Your task to perform on an android device: toggle pop-ups in chrome Image 0: 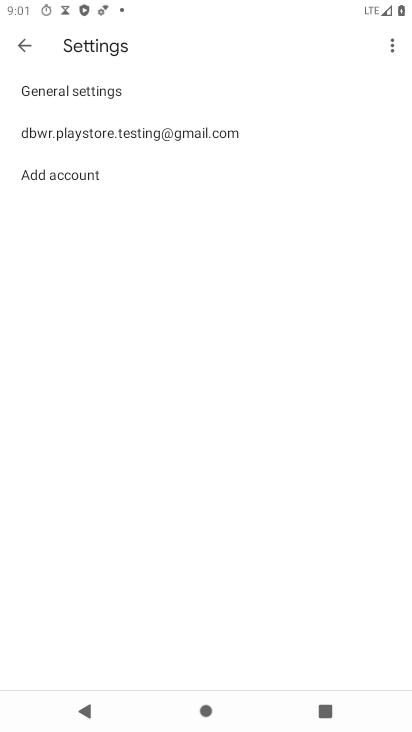
Step 0: press back button
Your task to perform on an android device: toggle pop-ups in chrome Image 1: 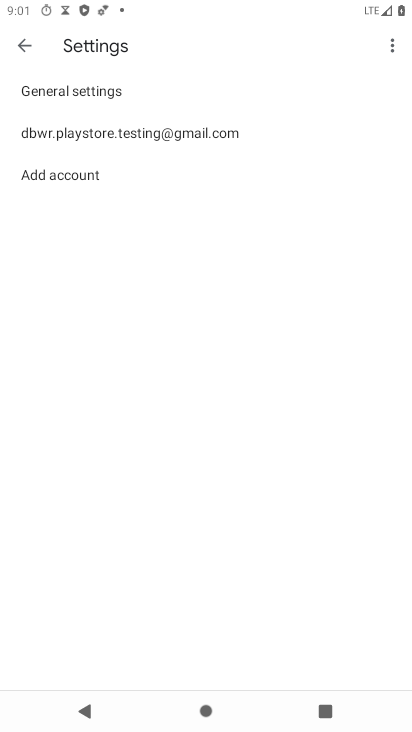
Step 1: press back button
Your task to perform on an android device: toggle pop-ups in chrome Image 2: 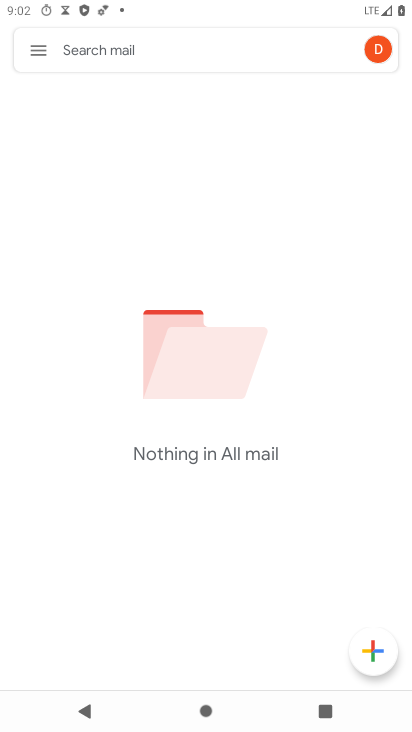
Step 2: press home button
Your task to perform on an android device: toggle pop-ups in chrome Image 3: 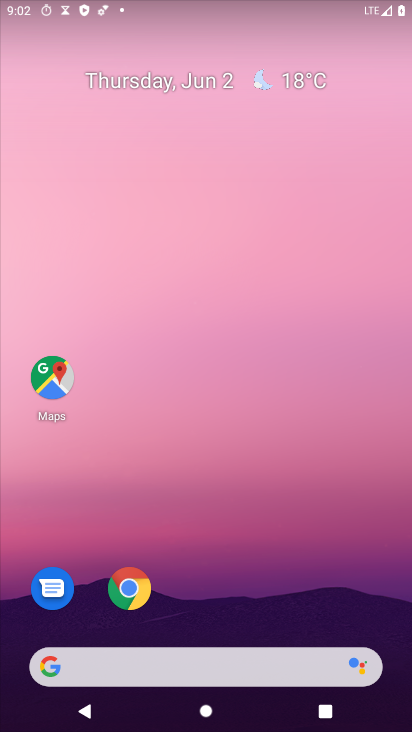
Step 3: click (124, 586)
Your task to perform on an android device: toggle pop-ups in chrome Image 4: 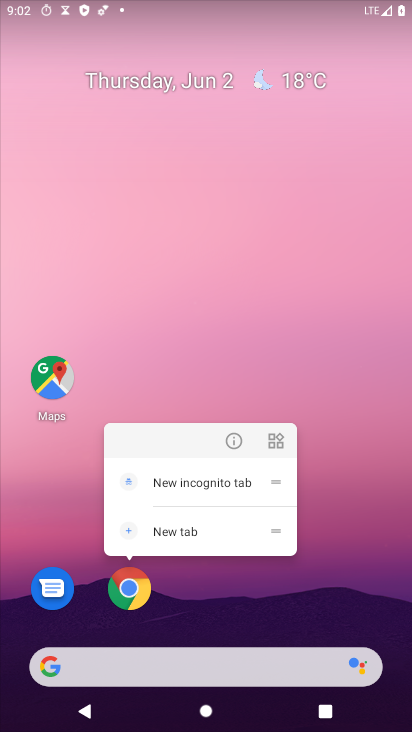
Step 4: click (126, 593)
Your task to perform on an android device: toggle pop-ups in chrome Image 5: 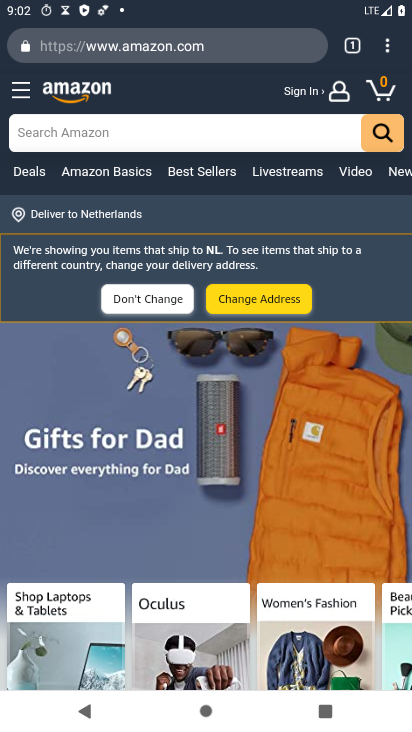
Step 5: drag from (383, 38) to (240, 511)
Your task to perform on an android device: toggle pop-ups in chrome Image 6: 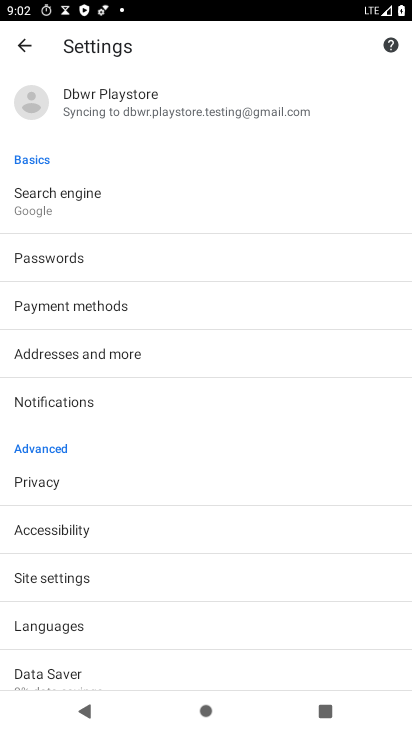
Step 6: click (63, 570)
Your task to perform on an android device: toggle pop-ups in chrome Image 7: 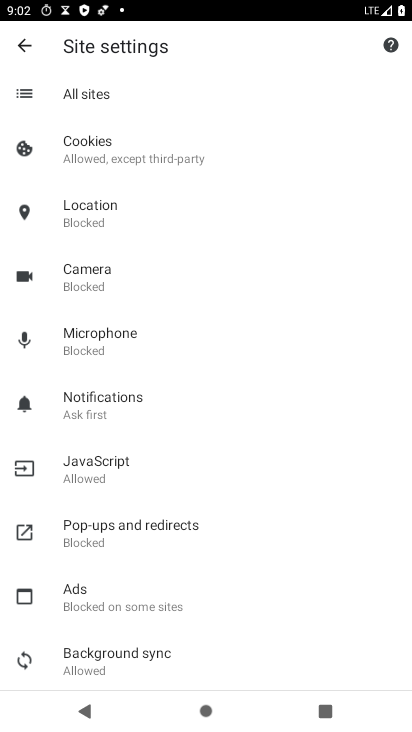
Step 7: click (136, 532)
Your task to perform on an android device: toggle pop-ups in chrome Image 8: 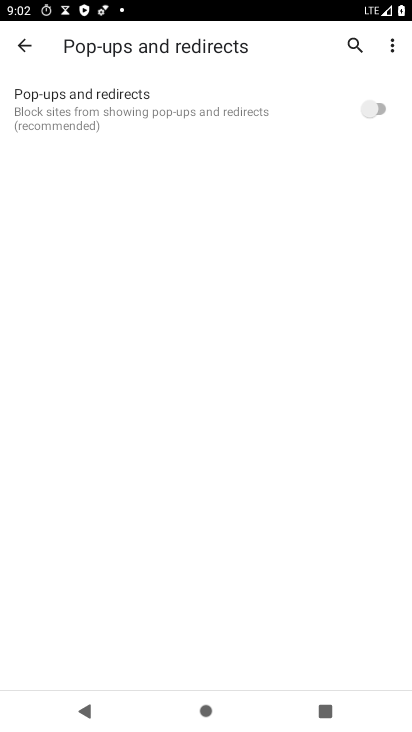
Step 8: click (373, 106)
Your task to perform on an android device: toggle pop-ups in chrome Image 9: 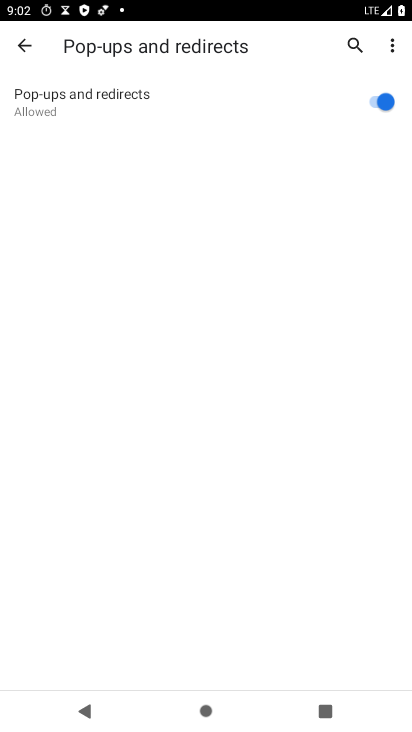
Step 9: task complete